Your task to perform on an android device: turn on the 24-hour format for clock Image 0: 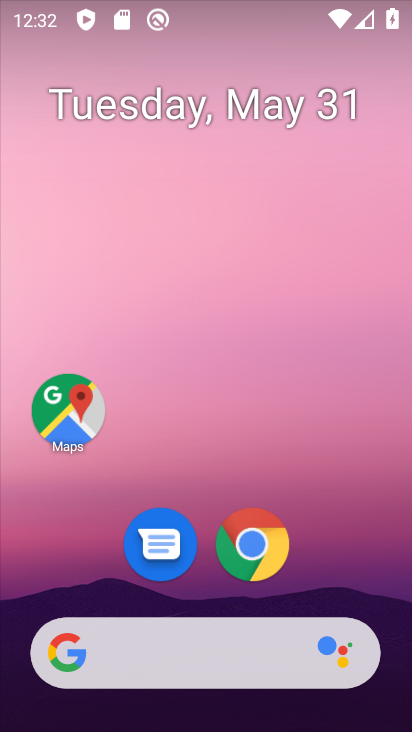
Step 0: drag from (194, 620) to (292, 45)
Your task to perform on an android device: turn on the 24-hour format for clock Image 1: 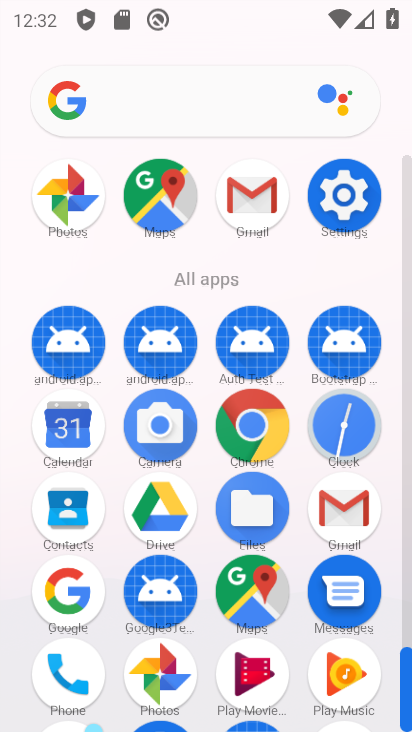
Step 1: click (361, 405)
Your task to perform on an android device: turn on the 24-hour format for clock Image 2: 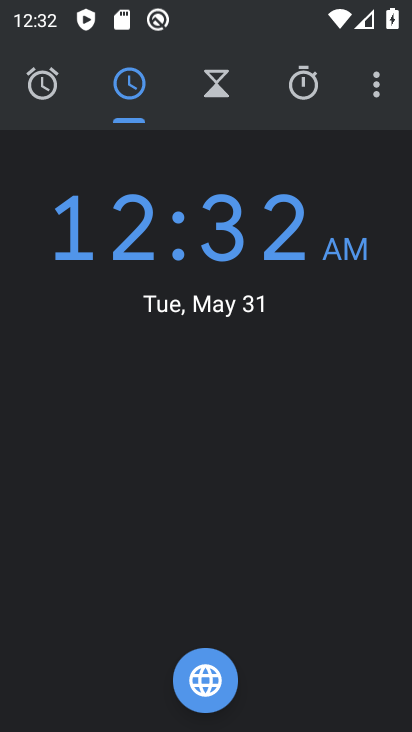
Step 2: click (374, 75)
Your task to perform on an android device: turn on the 24-hour format for clock Image 3: 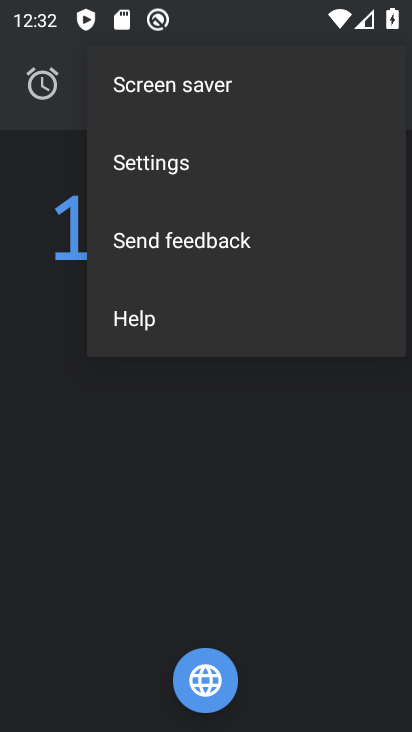
Step 3: click (324, 165)
Your task to perform on an android device: turn on the 24-hour format for clock Image 4: 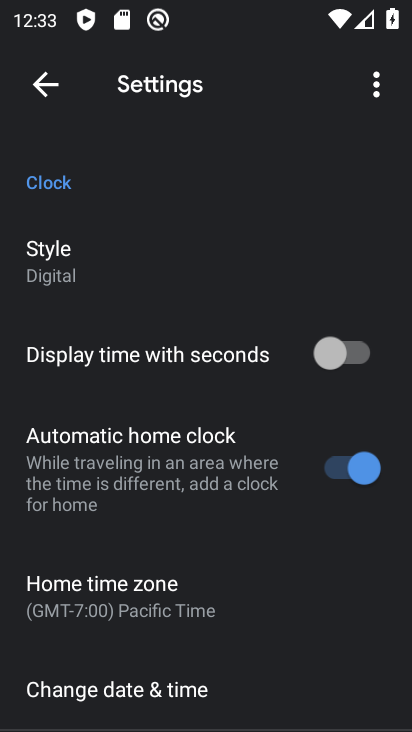
Step 4: drag from (135, 580) to (212, 270)
Your task to perform on an android device: turn on the 24-hour format for clock Image 5: 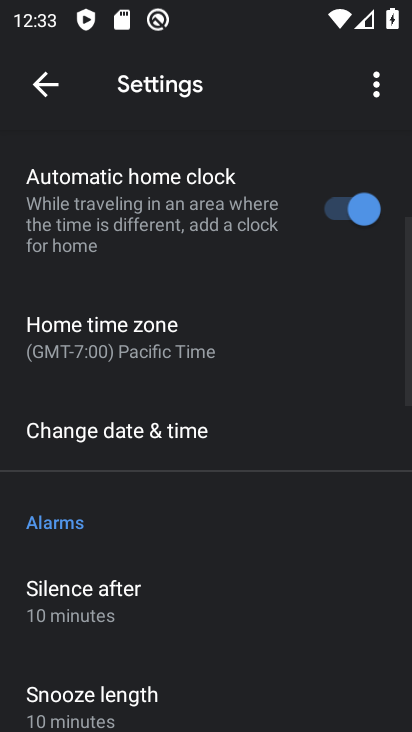
Step 5: click (145, 468)
Your task to perform on an android device: turn on the 24-hour format for clock Image 6: 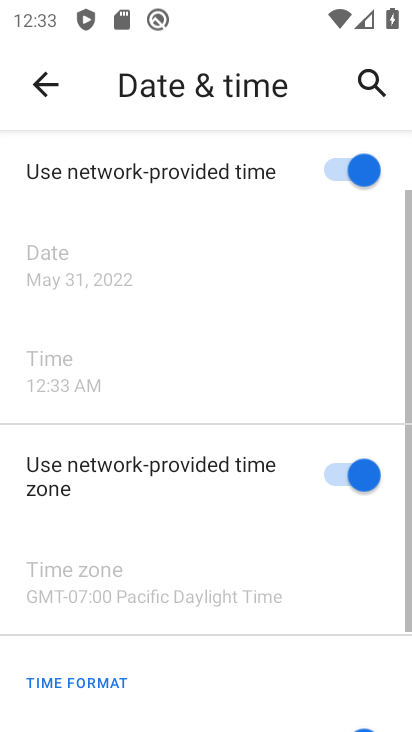
Step 6: drag from (208, 672) to (304, 145)
Your task to perform on an android device: turn on the 24-hour format for clock Image 7: 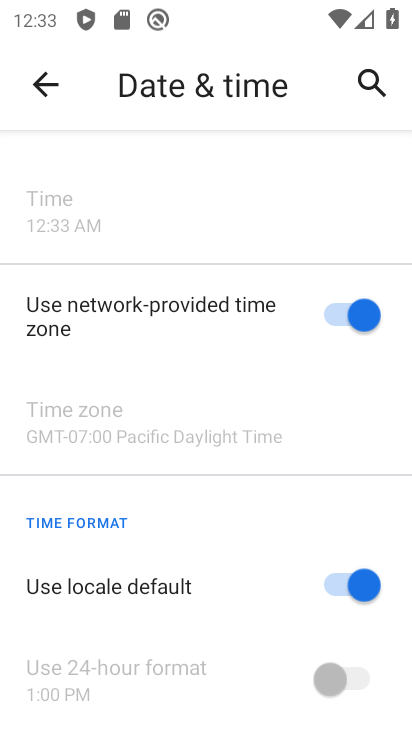
Step 7: click (353, 576)
Your task to perform on an android device: turn on the 24-hour format for clock Image 8: 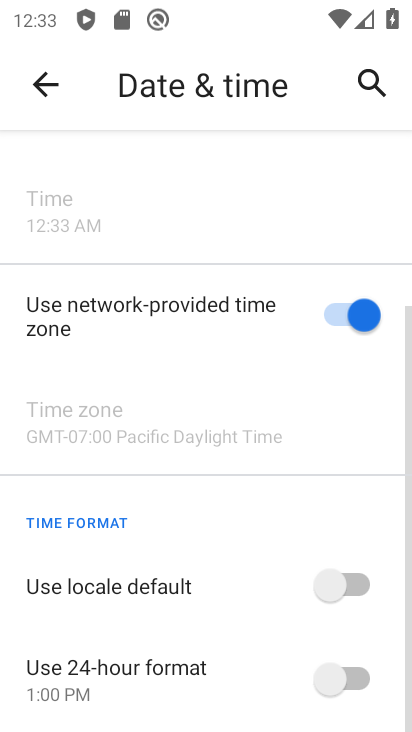
Step 8: click (360, 675)
Your task to perform on an android device: turn on the 24-hour format for clock Image 9: 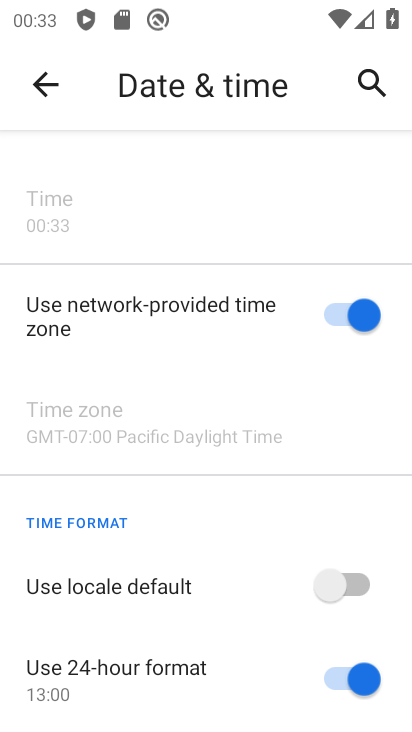
Step 9: task complete